Your task to perform on an android device: What is the recent news? Image 0: 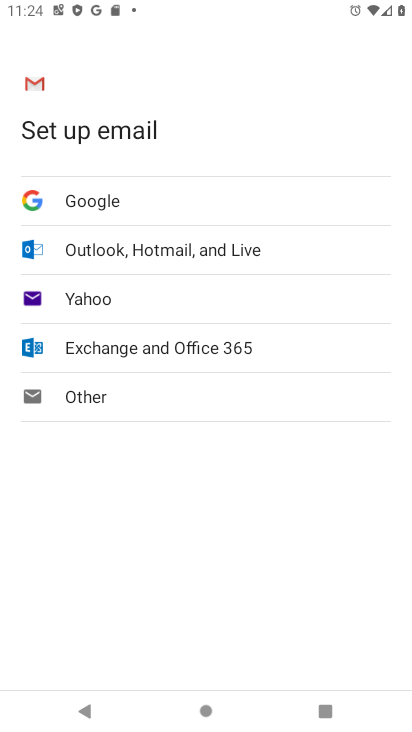
Step 0: press home button
Your task to perform on an android device: What is the recent news? Image 1: 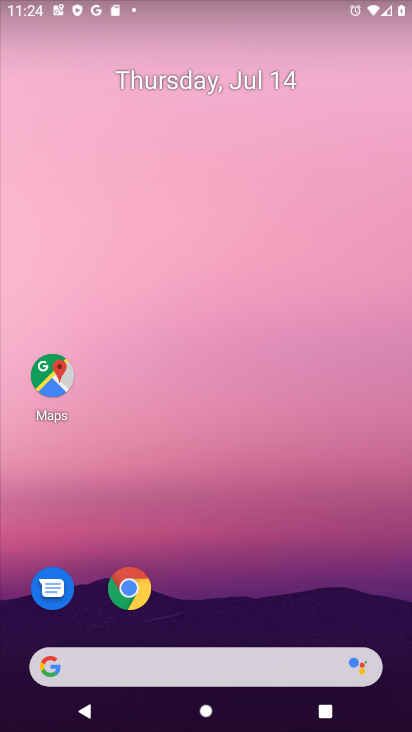
Step 1: drag from (235, 564) to (285, 77)
Your task to perform on an android device: What is the recent news? Image 2: 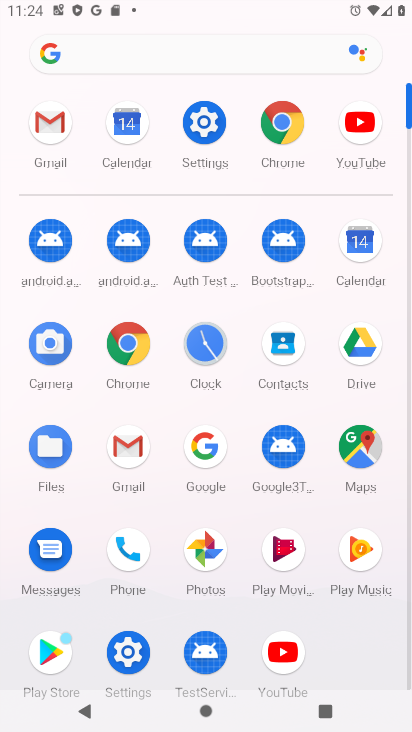
Step 2: click (133, 345)
Your task to perform on an android device: What is the recent news? Image 3: 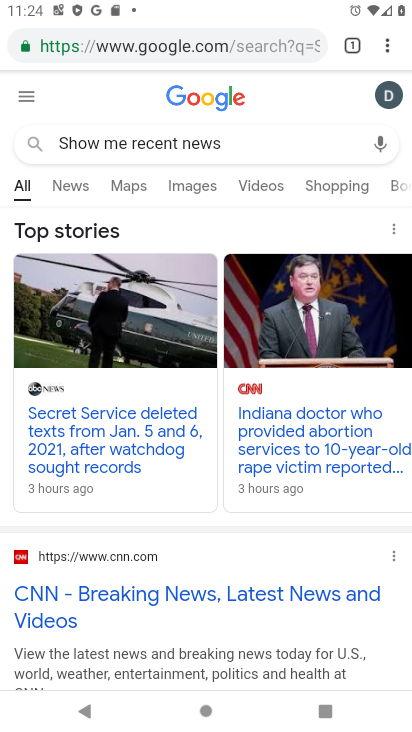
Step 3: click (213, 43)
Your task to perform on an android device: What is the recent news? Image 4: 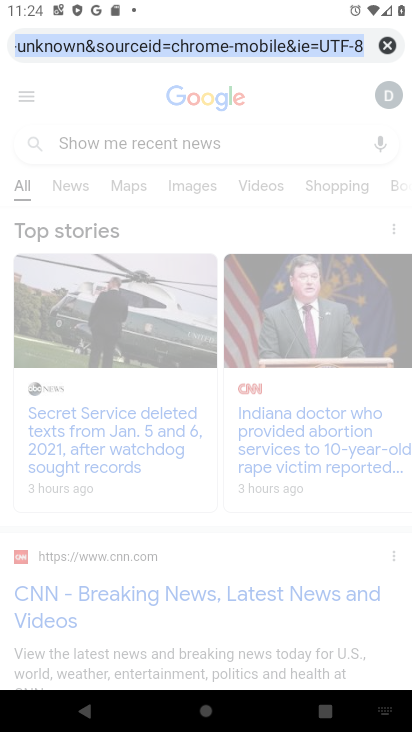
Step 4: click (385, 42)
Your task to perform on an android device: What is the recent news? Image 5: 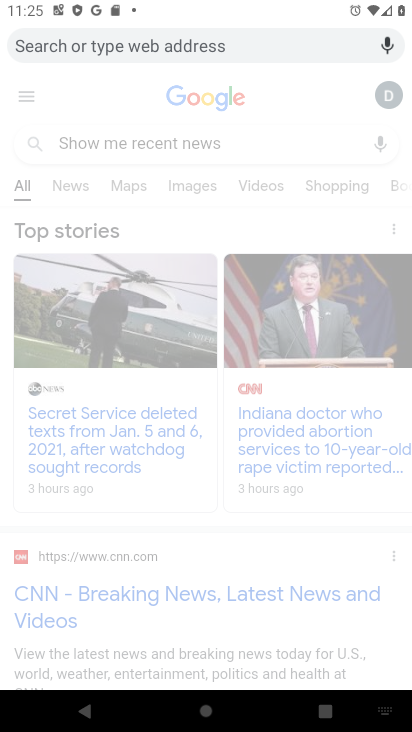
Step 5: type "what is recent news?"
Your task to perform on an android device: What is the recent news? Image 6: 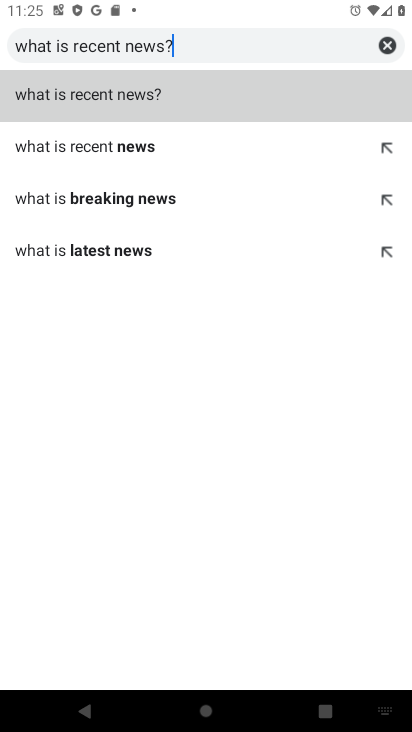
Step 6: type ""
Your task to perform on an android device: What is the recent news? Image 7: 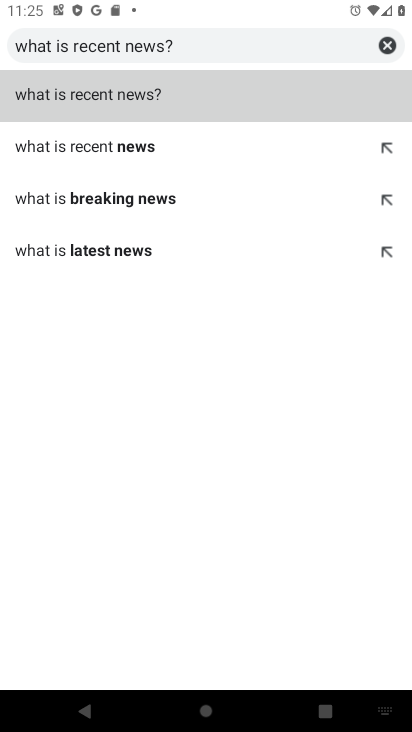
Step 7: click (107, 97)
Your task to perform on an android device: What is the recent news? Image 8: 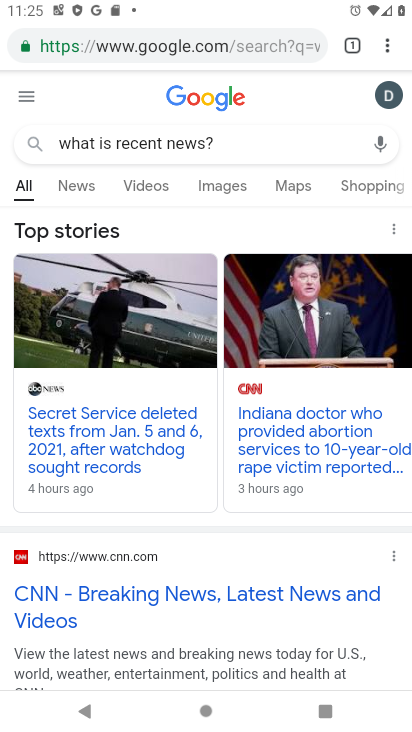
Step 8: click (73, 186)
Your task to perform on an android device: What is the recent news? Image 9: 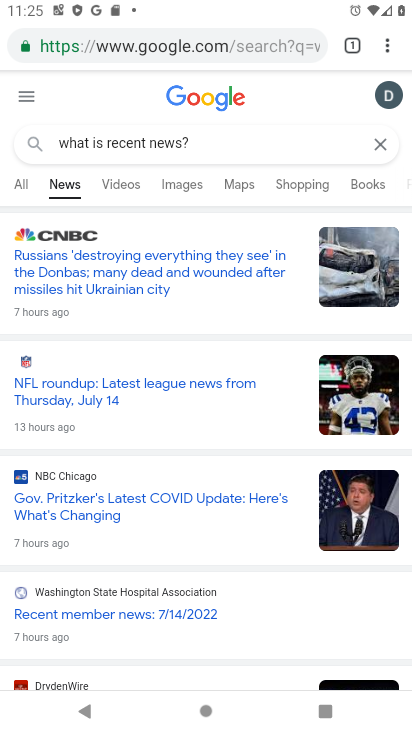
Step 9: task complete